Your task to perform on an android device: turn on javascript in the chrome app Image 0: 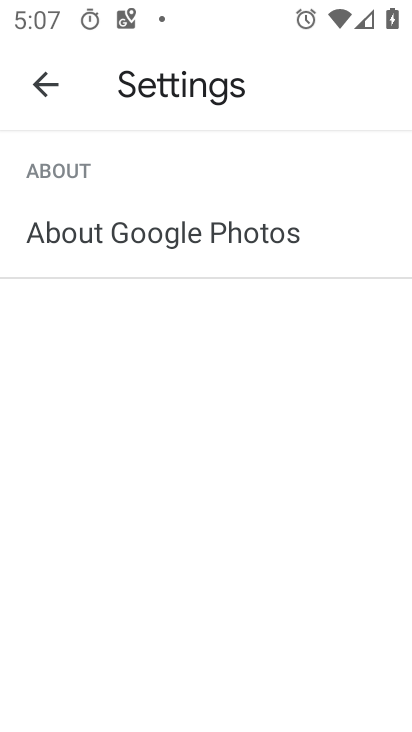
Step 0: press home button
Your task to perform on an android device: turn on javascript in the chrome app Image 1: 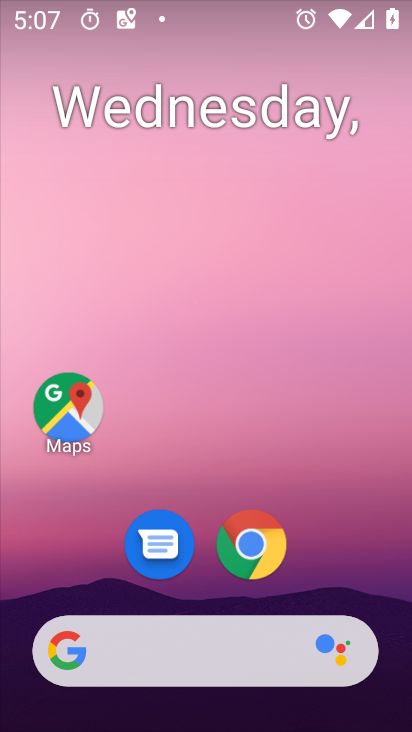
Step 1: click (250, 549)
Your task to perform on an android device: turn on javascript in the chrome app Image 2: 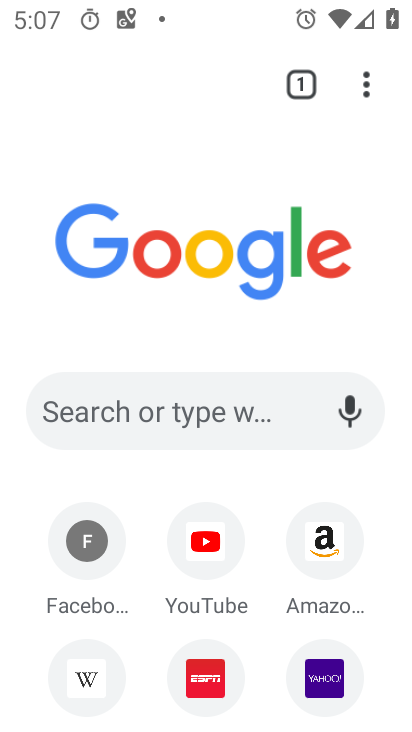
Step 2: click (365, 85)
Your task to perform on an android device: turn on javascript in the chrome app Image 3: 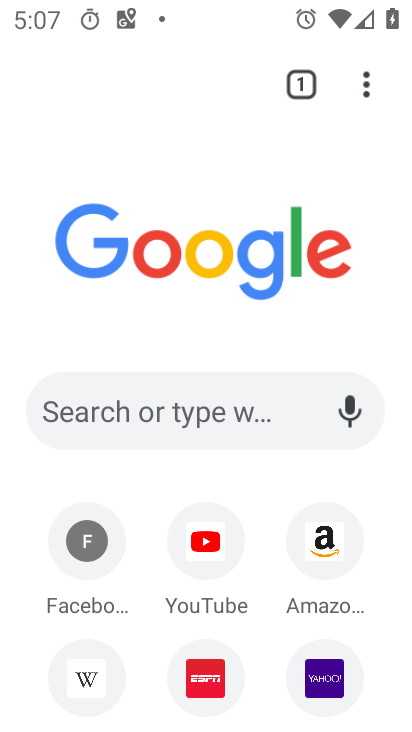
Step 3: click (370, 97)
Your task to perform on an android device: turn on javascript in the chrome app Image 4: 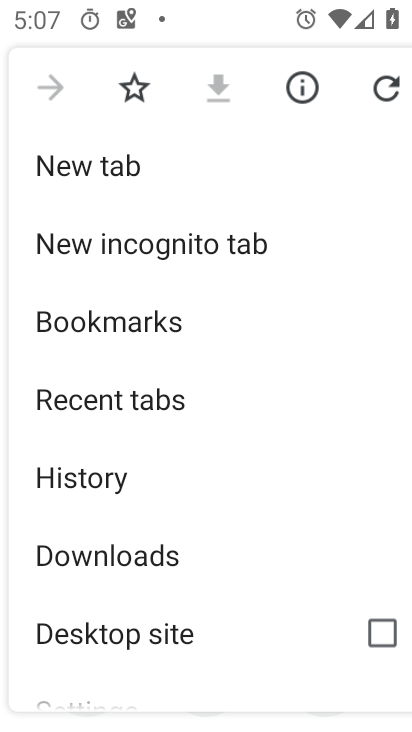
Step 4: drag from (79, 678) to (84, 314)
Your task to perform on an android device: turn on javascript in the chrome app Image 5: 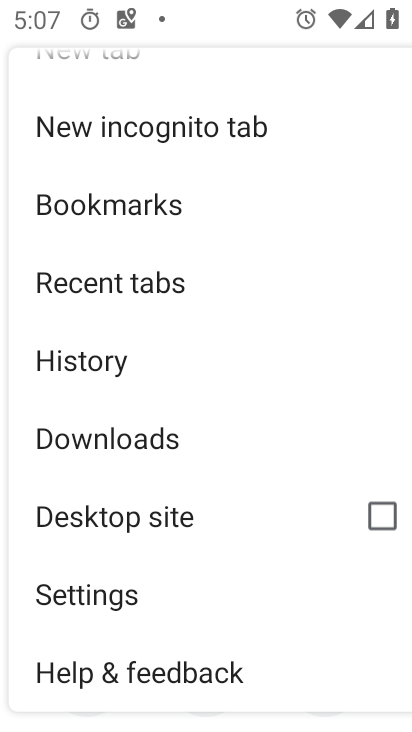
Step 5: click (108, 590)
Your task to perform on an android device: turn on javascript in the chrome app Image 6: 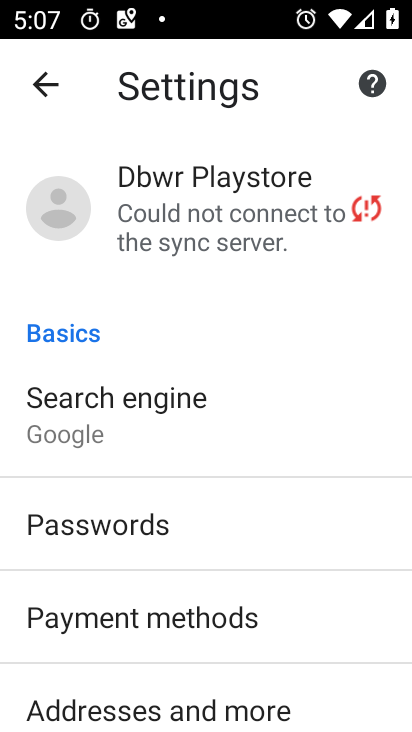
Step 6: drag from (169, 675) to (159, 277)
Your task to perform on an android device: turn on javascript in the chrome app Image 7: 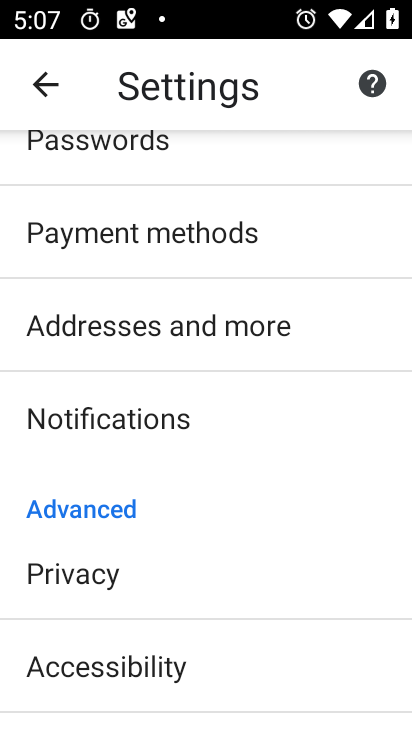
Step 7: drag from (156, 617) to (151, 290)
Your task to perform on an android device: turn on javascript in the chrome app Image 8: 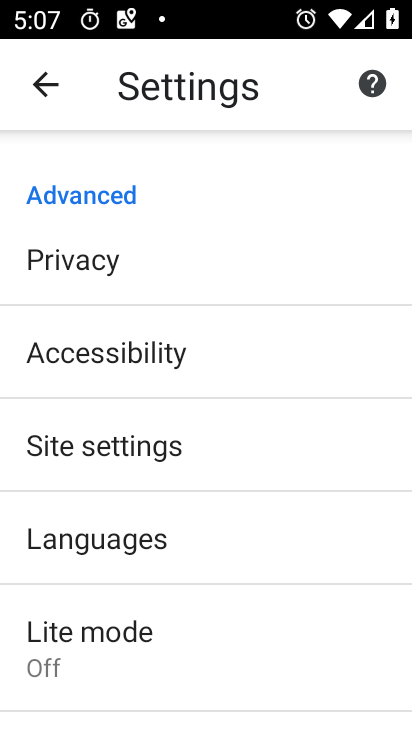
Step 8: click (106, 452)
Your task to perform on an android device: turn on javascript in the chrome app Image 9: 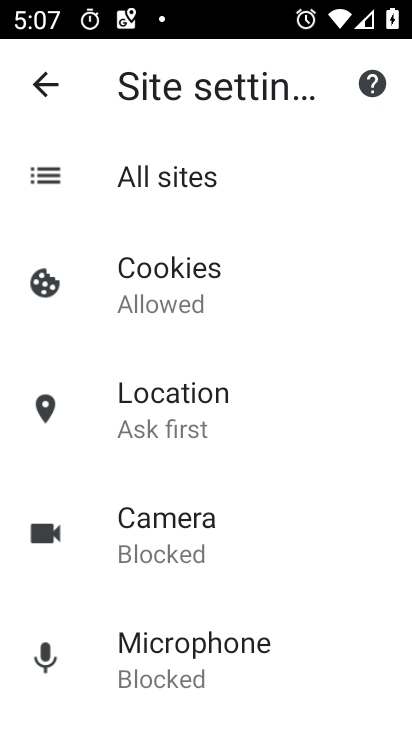
Step 9: drag from (265, 682) to (268, 142)
Your task to perform on an android device: turn on javascript in the chrome app Image 10: 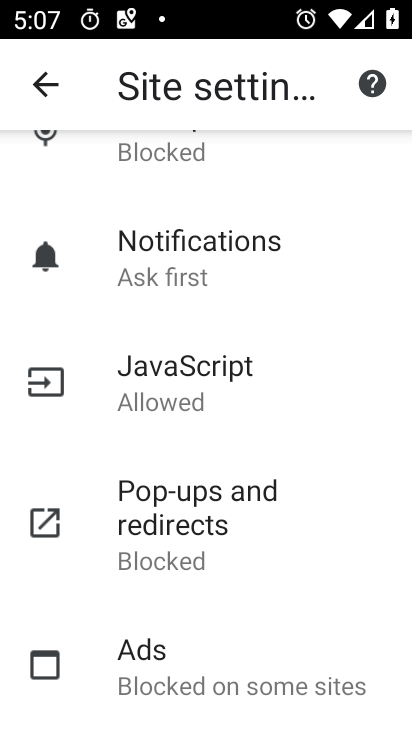
Step 10: click (178, 355)
Your task to perform on an android device: turn on javascript in the chrome app Image 11: 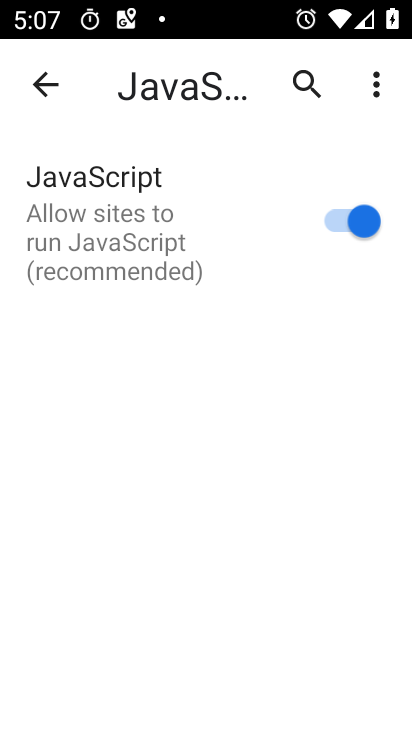
Step 11: task complete